Your task to perform on an android device: Open the map Image 0: 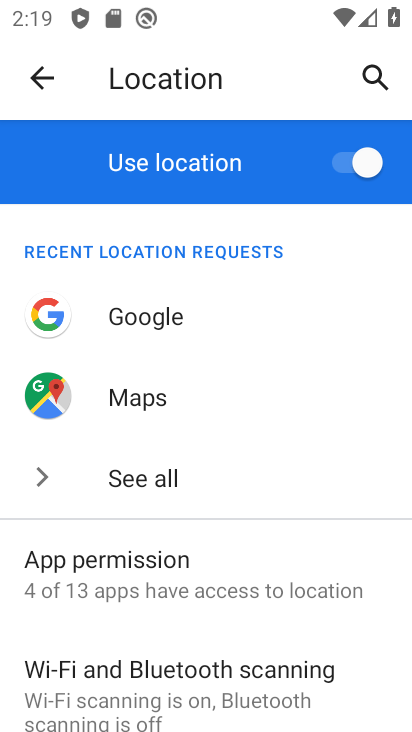
Step 0: press home button
Your task to perform on an android device: Open the map Image 1: 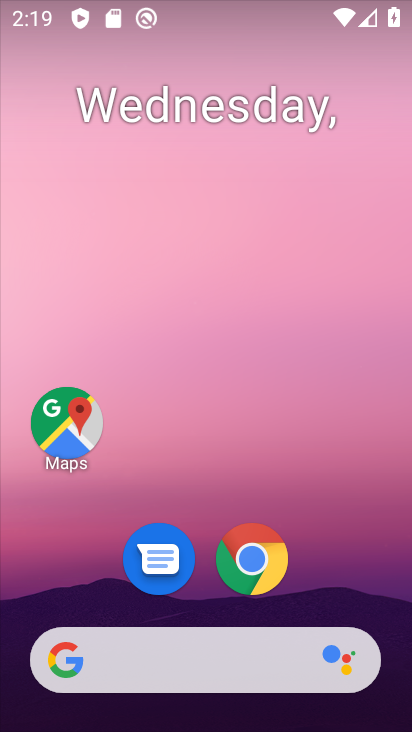
Step 1: drag from (347, 580) to (385, 116)
Your task to perform on an android device: Open the map Image 2: 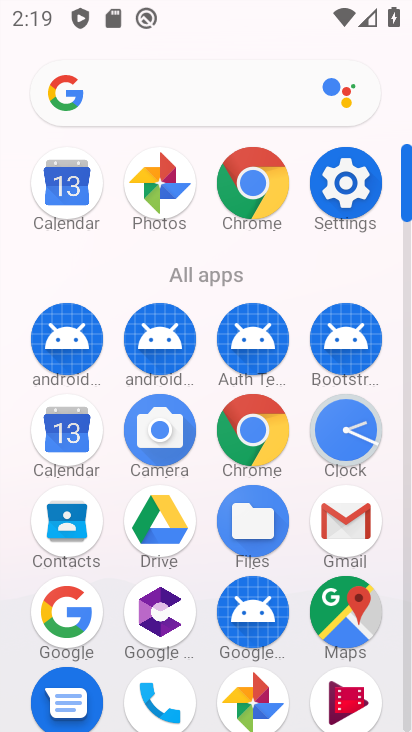
Step 2: drag from (389, 651) to (388, 339)
Your task to perform on an android device: Open the map Image 3: 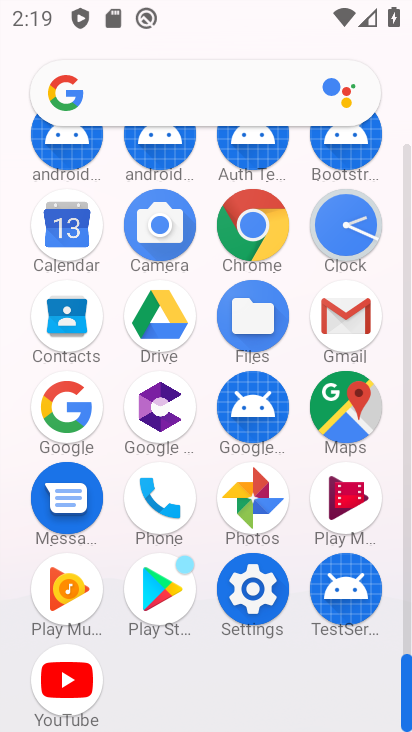
Step 3: click (369, 405)
Your task to perform on an android device: Open the map Image 4: 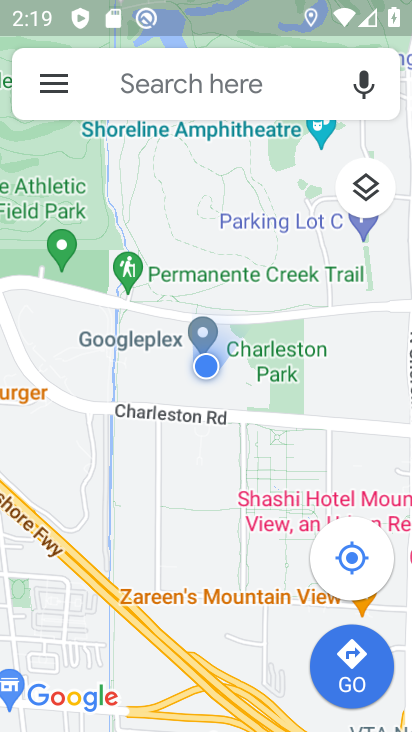
Step 4: task complete